Your task to perform on an android device: Go to wifi settings Image 0: 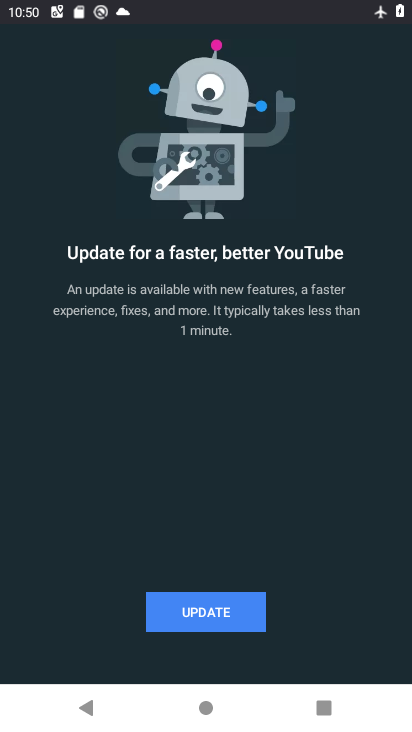
Step 0: press back button
Your task to perform on an android device: Go to wifi settings Image 1: 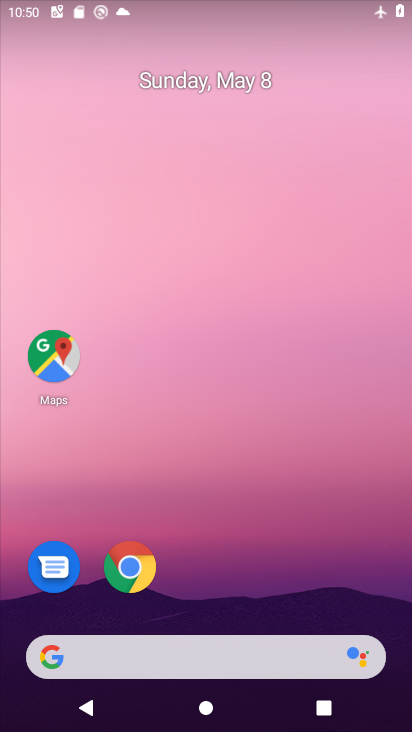
Step 1: drag from (244, 576) to (162, 11)
Your task to perform on an android device: Go to wifi settings Image 2: 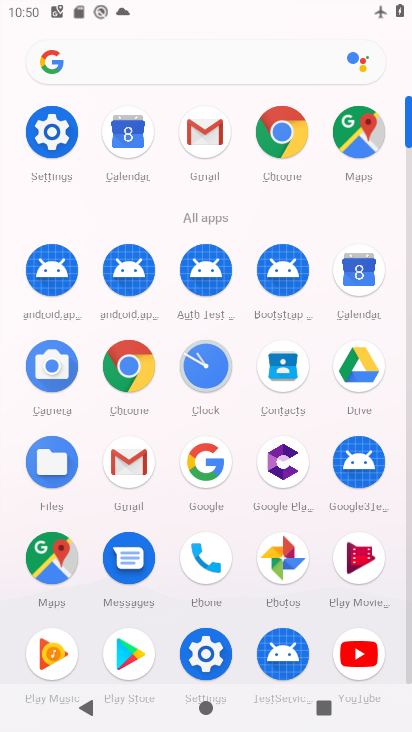
Step 2: click (51, 205)
Your task to perform on an android device: Go to wifi settings Image 3: 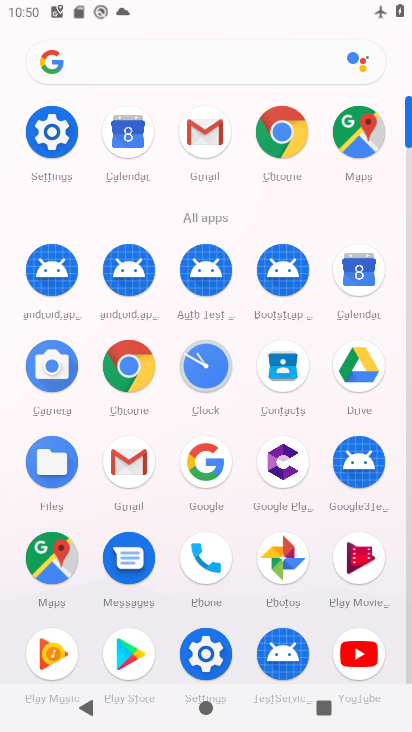
Step 3: click (47, 159)
Your task to perform on an android device: Go to wifi settings Image 4: 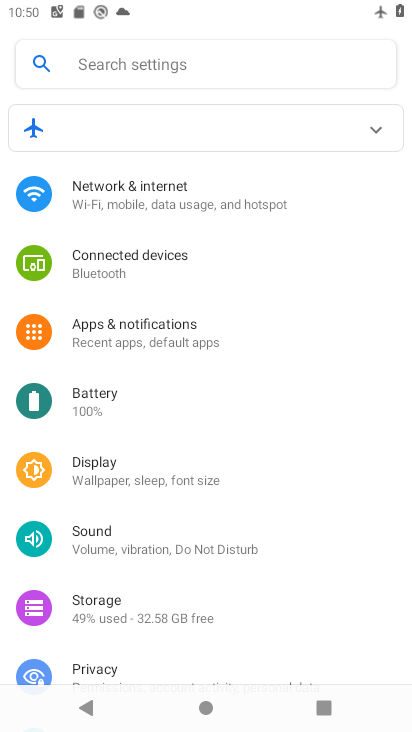
Step 4: click (184, 200)
Your task to perform on an android device: Go to wifi settings Image 5: 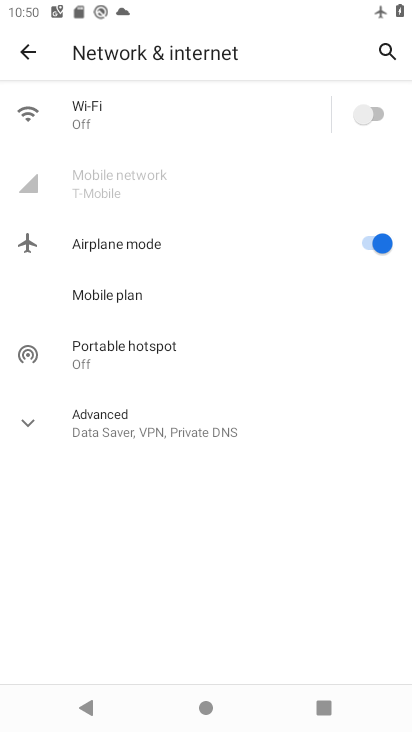
Step 5: task complete